Your task to perform on an android device: Open Chrome and go to settings Image 0: 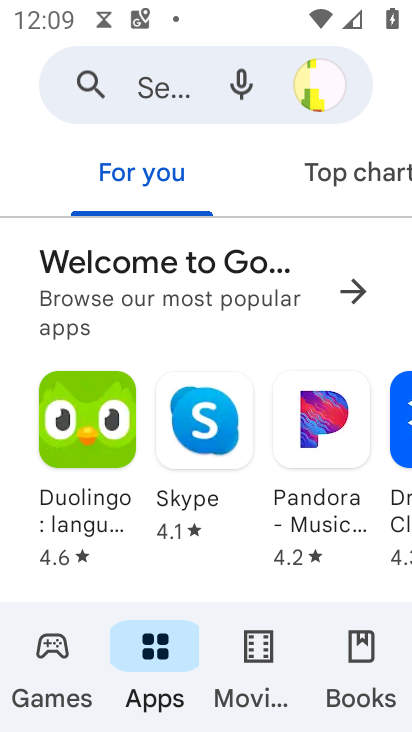
Step 0: press home button
Your task to perform on an android device: Open Chrome and go to settings Image 1: 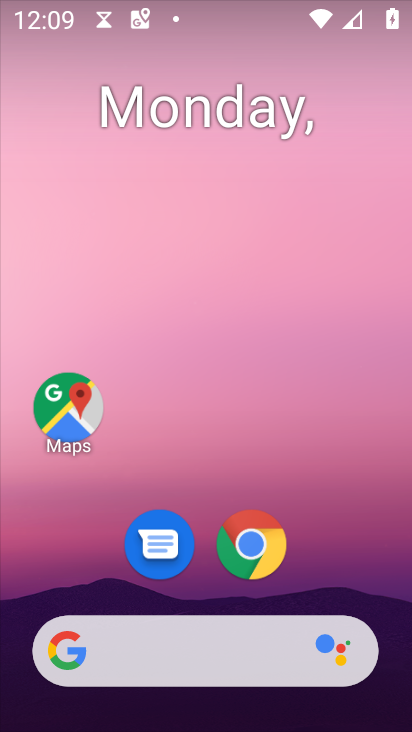
Step 1: drag from (345, 561) to (337, 235)
Your task to perform on an android device: Open Chrome and go to settings Image 2: 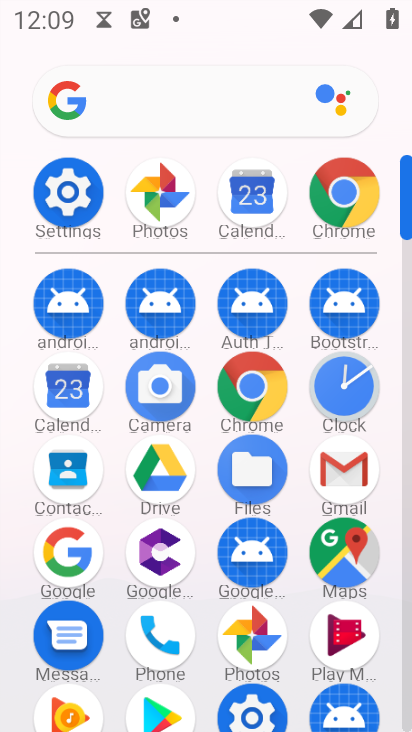
Step 2: click (261, 379)
Your task to perform on an android device: Open Chrome and go to settings Image 3: 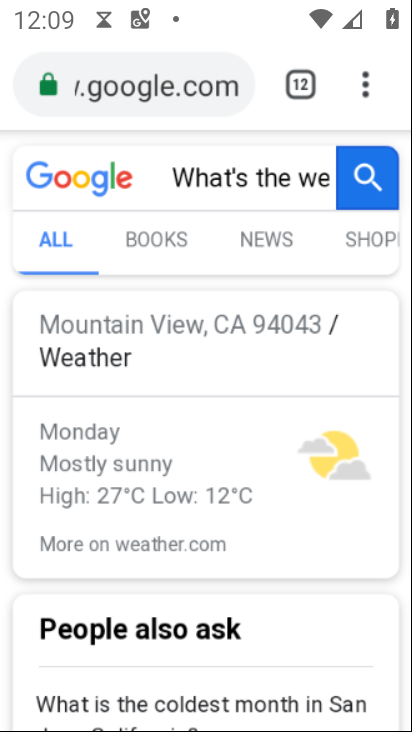
Step 3: click (368, 78)
Your task to perform on an android device: Open Chrome and go to settings Image 4: 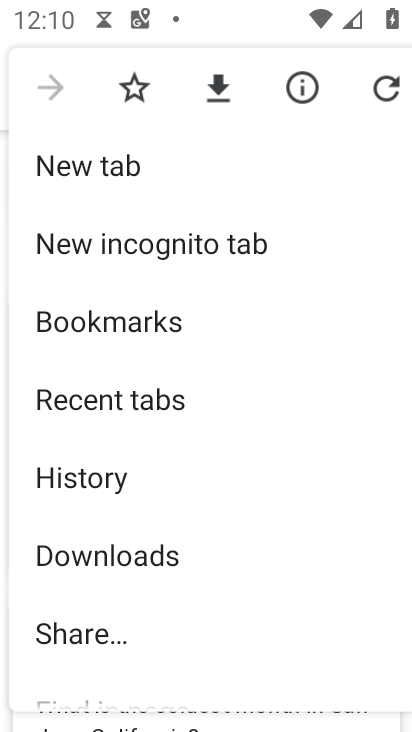
Step 4: drag from (140, 613) to (246, 250)
Your task to perform on an android device: Open Chrome and go to settings Image 5: 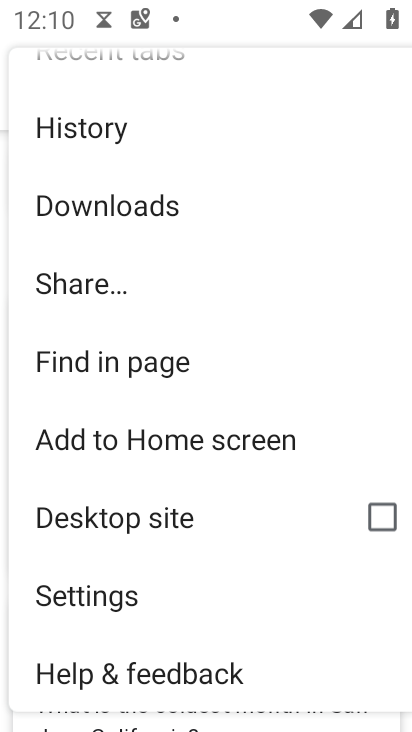
Step 5: click (141, 588)
Your task to perform on an android device: Open Chrome and go to settings Image 6: 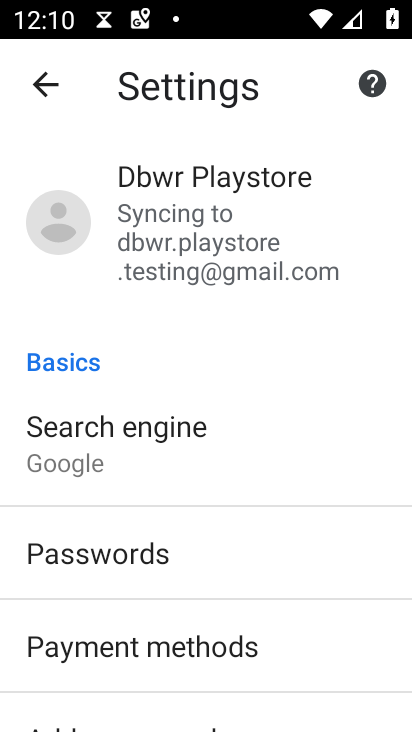
Step 6: task complete